Your task to perform on an android device: open device folders in google photos Image 0: 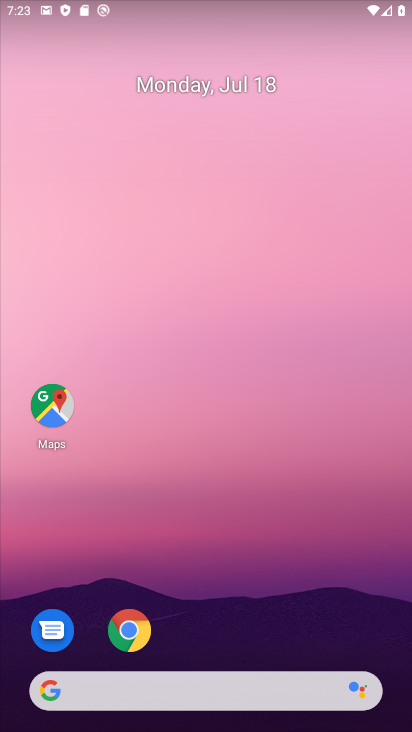
Step 0: press home button
Your task to perform on an android device: open device folders in google photos Image 1: 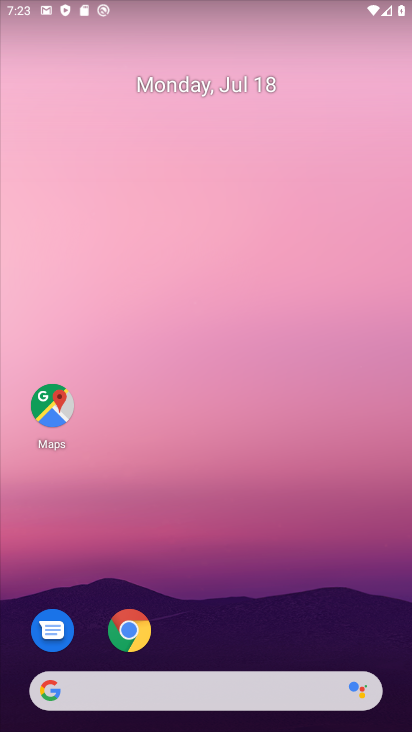
Step 1: drag from (312, 706) to (143, 246)
Your task to perform on an android device: open device folders in google photos Image 2: 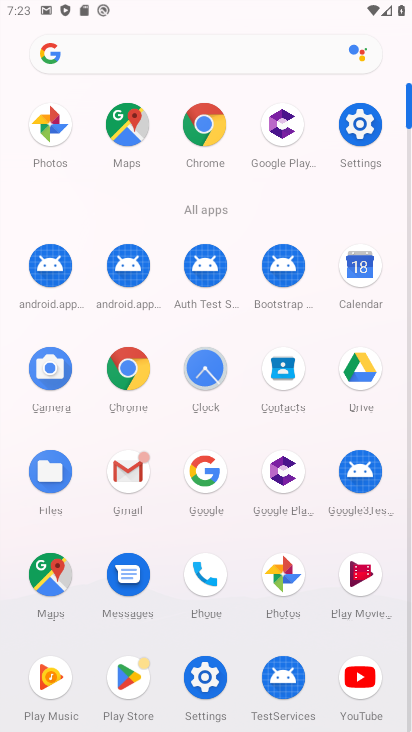
Step 2: click (290, 557)
Your task to perform on an android device: open device folders in google photos Image 3: 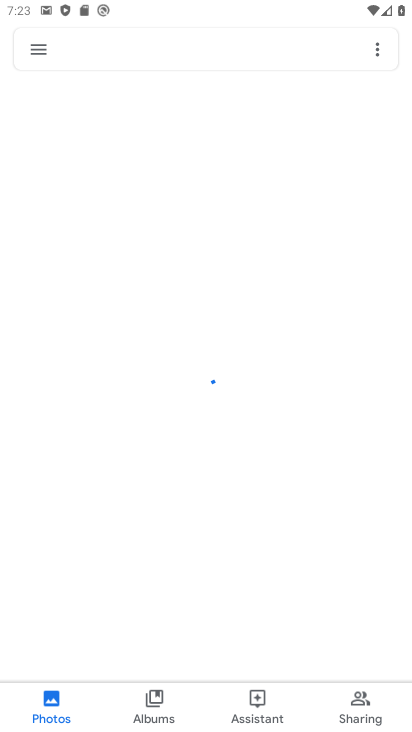
Step 3: click (34, 59)
Your task to perform on an android device: open device folders in google photos Image 4: 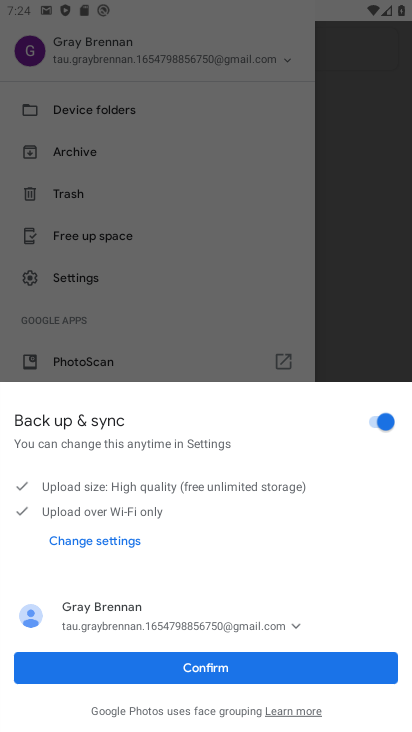
Step 4: click (235, 663)
Your task to perform on an android device: open device folders in google photos Image 5: 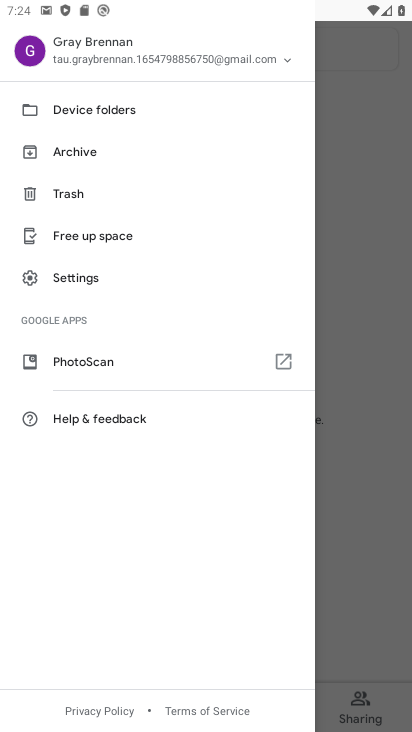
Step 5: click (59, 117)
Your task to perform on an android device: open device folders in google photos Image 6: 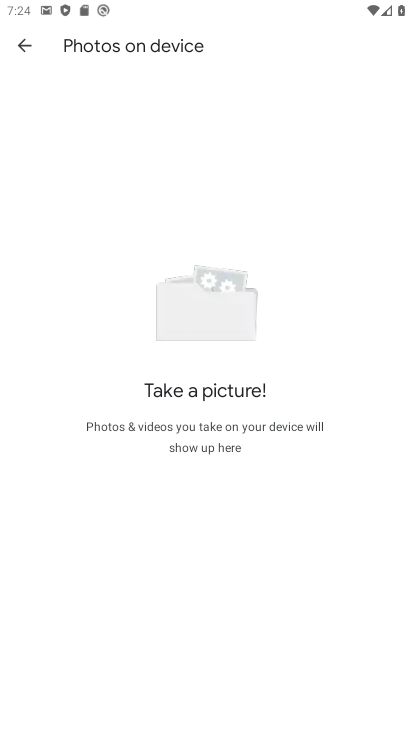
Step 6: task complete